Your task to perform on an android device: Toggle the flashlight Image 0: 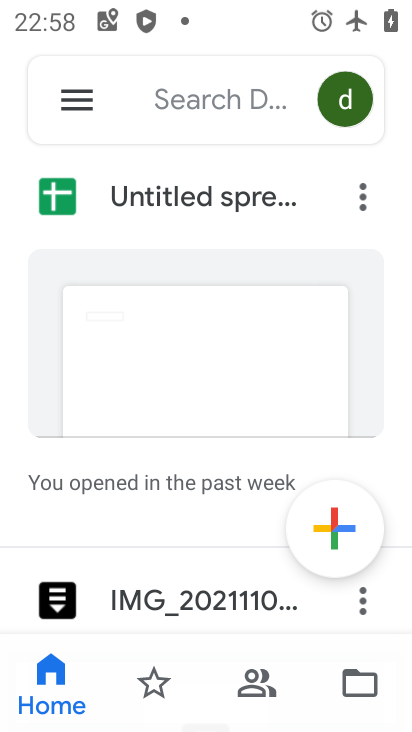
Step 0: press home button
Your task to perform on an android device: Toggle the flashlight Image 1: 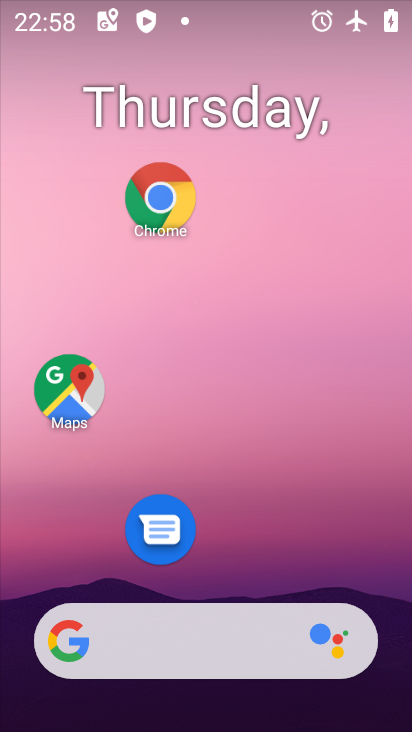
Step 1: drag from (270, 514) to (206, 0)
Your task to perform on an android device: Toggle the flashlight Image 2: 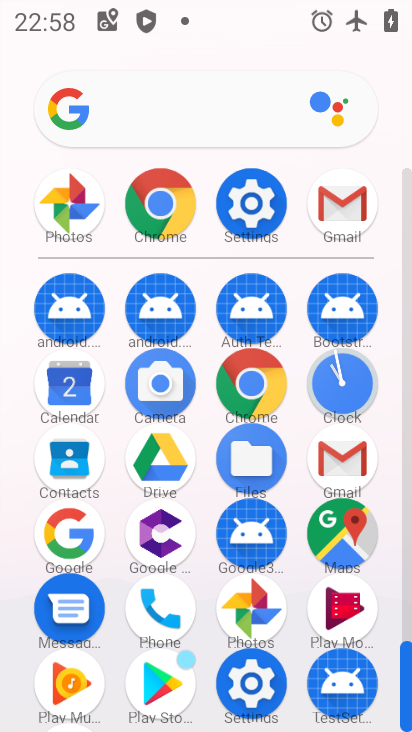
Step 2: click (253, 205)
Your task to perform on an android device: Toggle the flashlight Image 3: 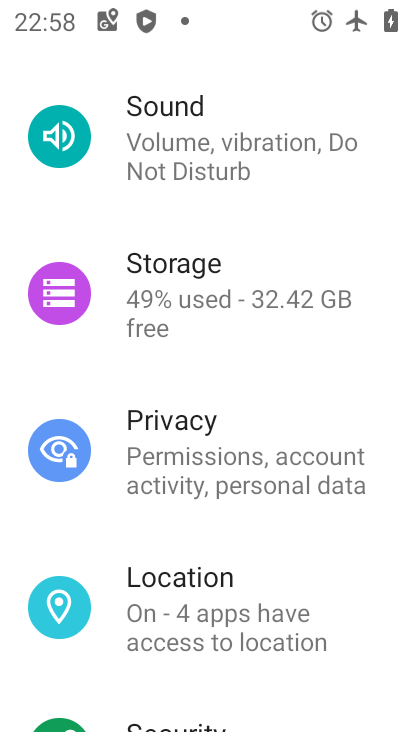
Step 3: drag from (226, 232) to (227, 533)
Your task to perform on an android device: Toggle the flashlight Image 4: 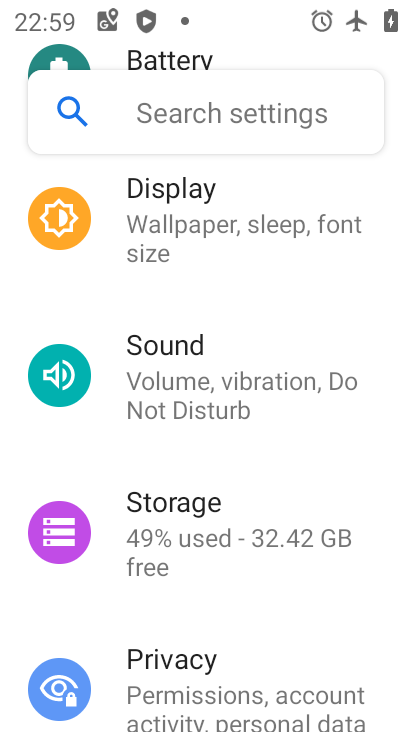
Step 4: click (148, 364)
Your task to perform on an android device: Toggle the flashlight Image 5: 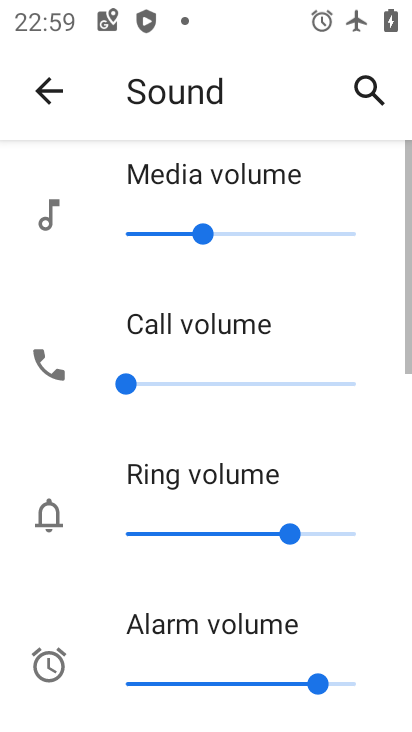
Step 5: click (167, 199)
Your task to perform on an android device: Toggle the flashlight Image 6: 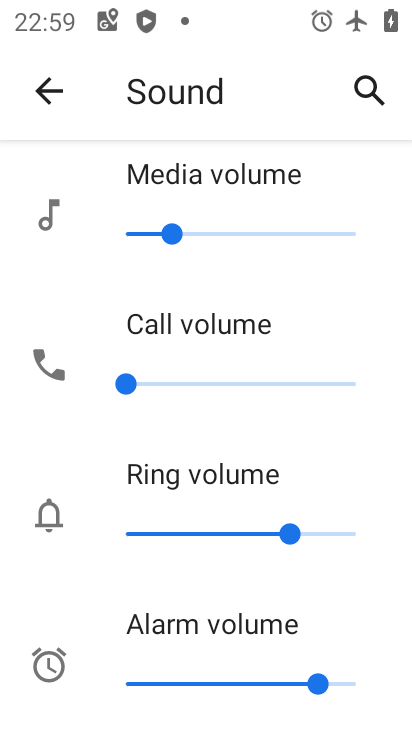
Step 6: click (49, 91)
Your task to perform on an android device: Toggle the flashlight Image 7: 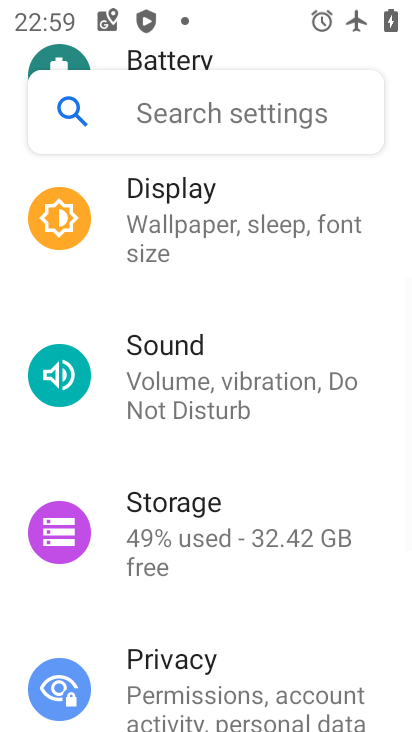
Step 7: click (209, 212)
Your task to perform on an android device: Toggle the flashlight Image 8: 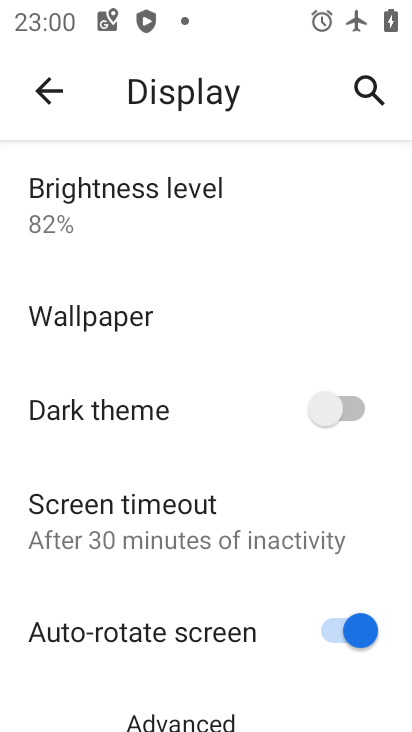
Step 8: task complete